Your task to perform on an android device: open wifi settings Image 0: 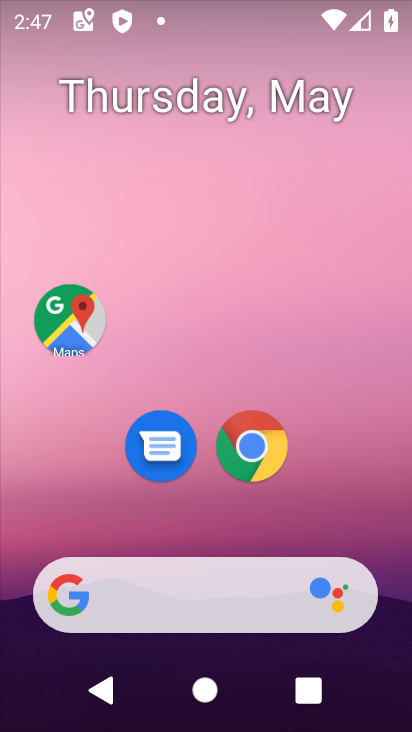
Step 0: drag from (333, 549) to (322, 75)
Your task to perform on an android device: open wifi settings Image 1: 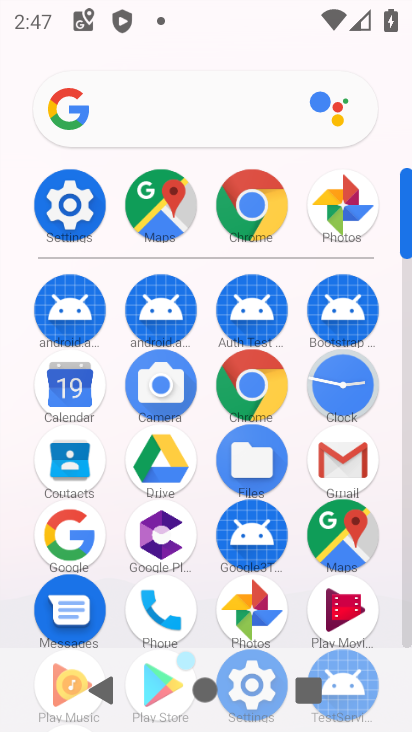
Step 1: click (70, 203)
Your task to perform on an android device: open wifi settings Image 2: 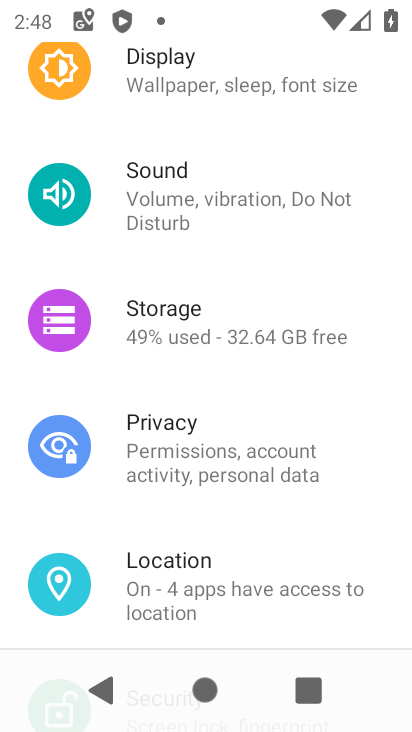
Step 2: drag from (269, 235) to (260, 570)
Your task to perform on an android device: open wifi settings Image 3: 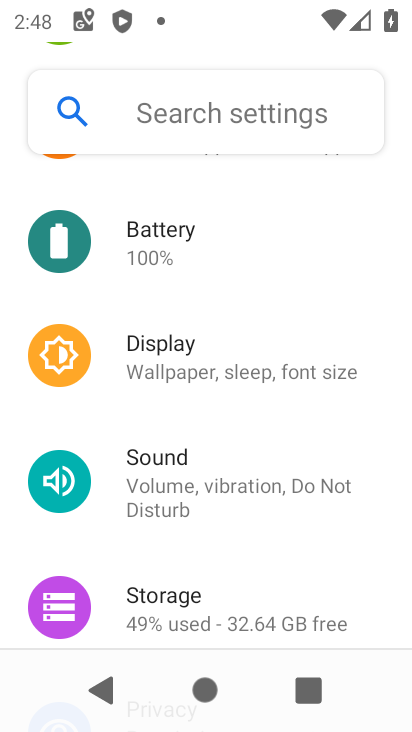
Step 3: drag from (279, 275) to (283, 608)
Your task to perform on an android device: open wifi settings Image 4: 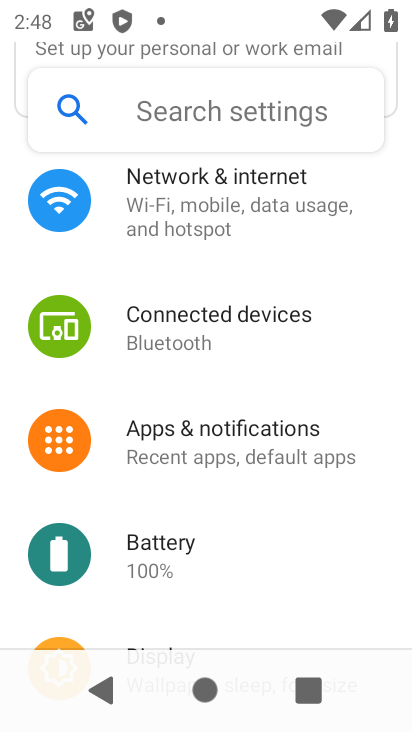
Step 4: click (193, 197)
Your task to perform on an android device: open wifi settings Image 5: 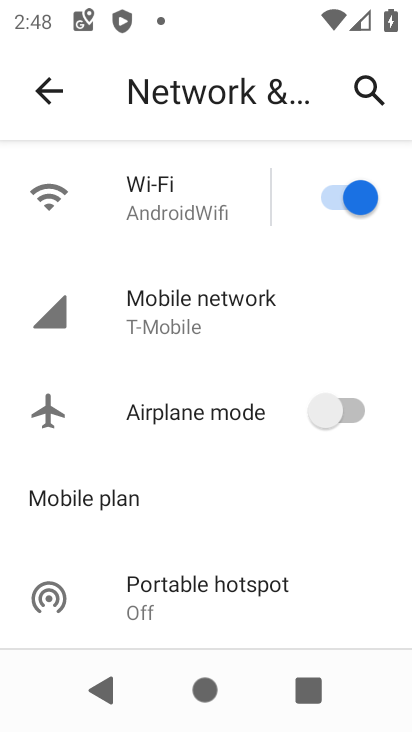
Step 5: click (108, 167)
Your task to perform on an android device: open wifi settings Image 6: 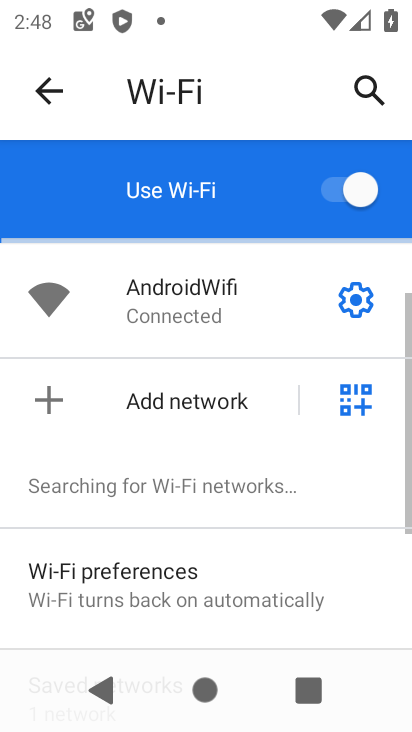
Step 6: task complete